Your task to perform on an android device: Search for top rated sushi restaurant Image 0: 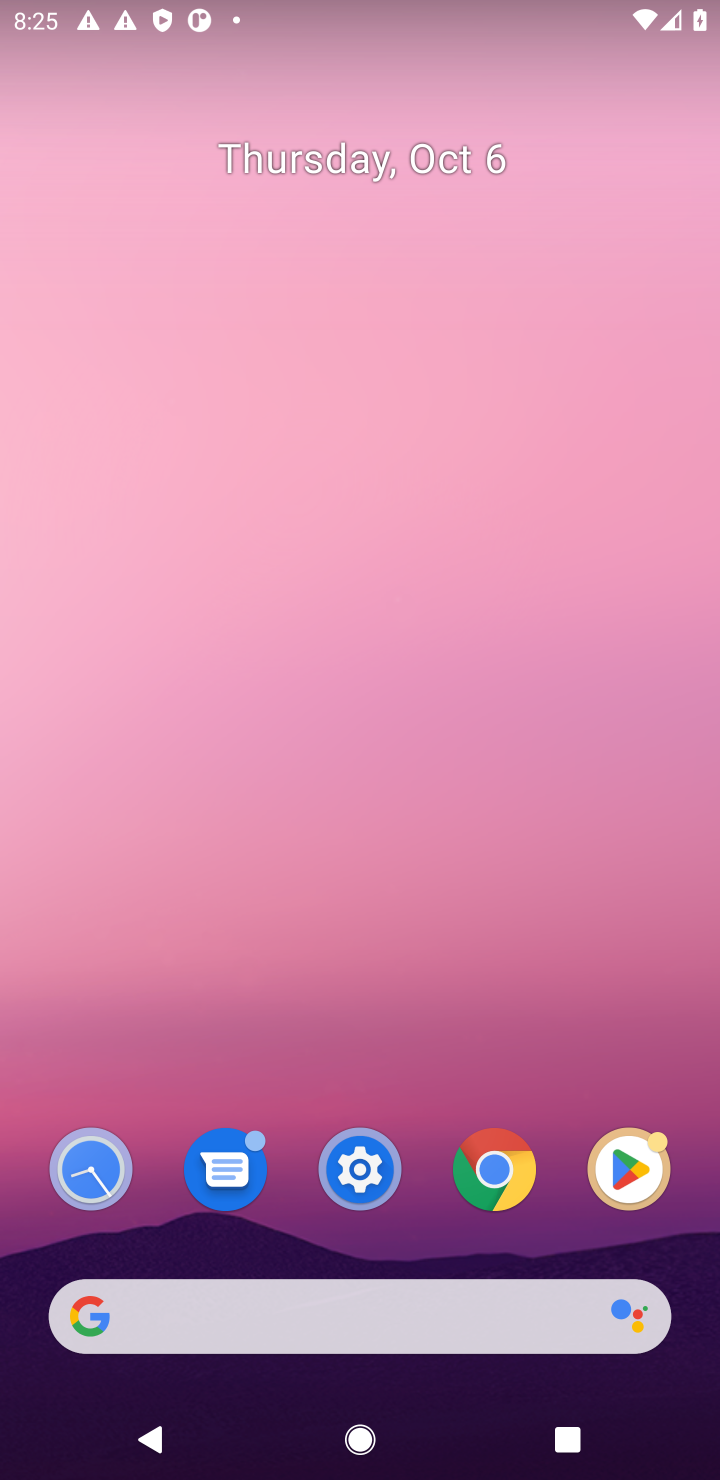
Step 0: drag from (361, 1020) to (562, 201)
Your task to perform on an android device: Search for top rated sushi restaurant Image 1: 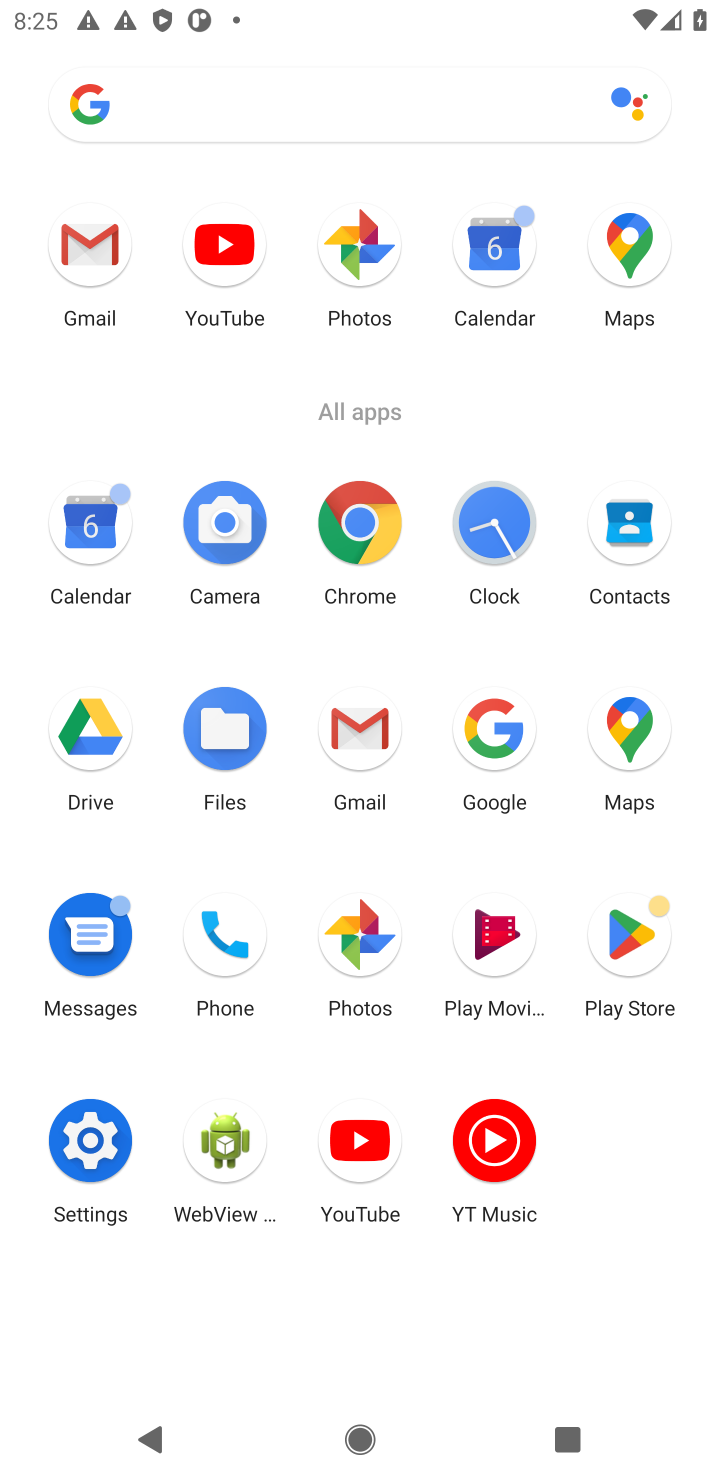
Step 1: click (495, 728)
Your task to perform on an android device: Search for top rated sushi restaurant Image 2: 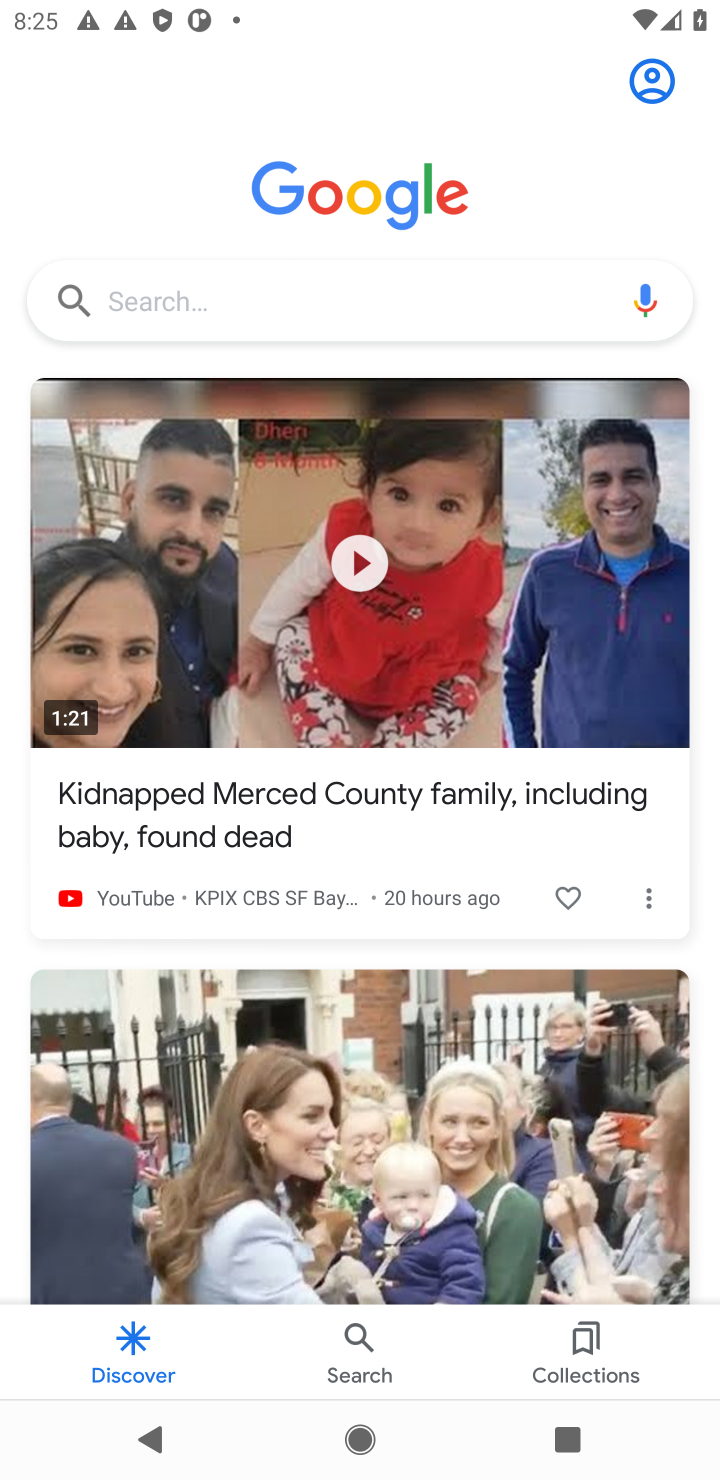
Step 2: click (333, 296)
Your task to perform on an android device: Search for top rated sushi restaurant Image 3: 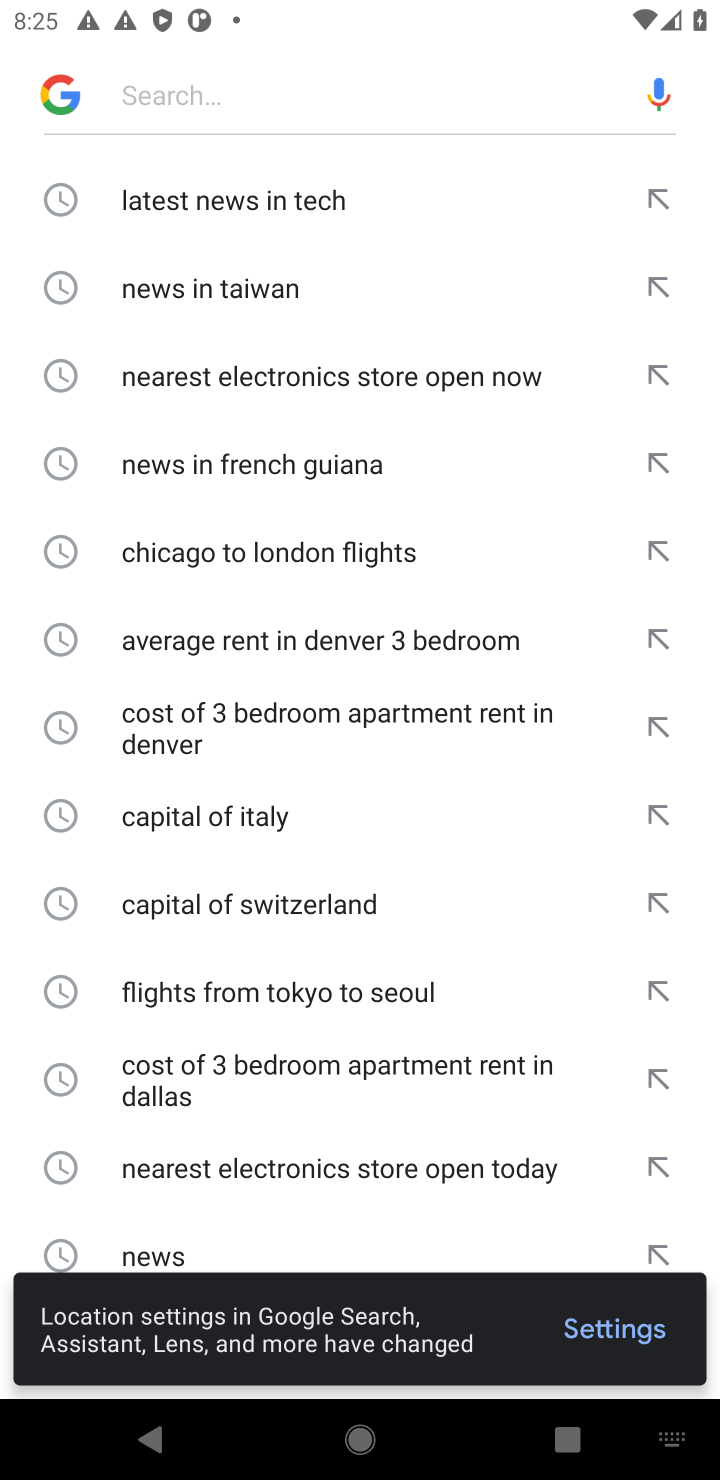
Step 3: type "top rated sushi restaurant"
Your task to perform on an android device: Search for top rated sushi restaurant Image 4: 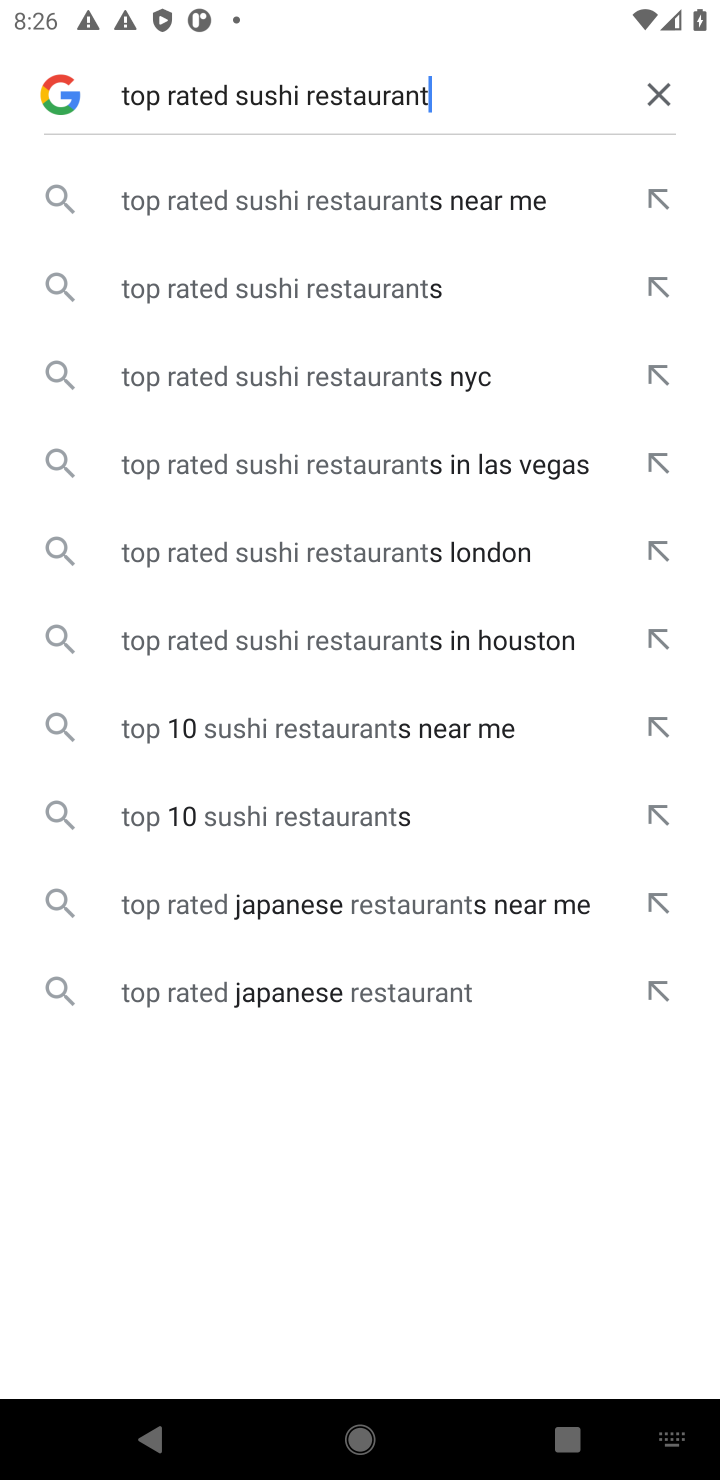
Step 4: click (331, 198)
Your task to perform on an android device: Search for top rated sushi restaurant Image 5: 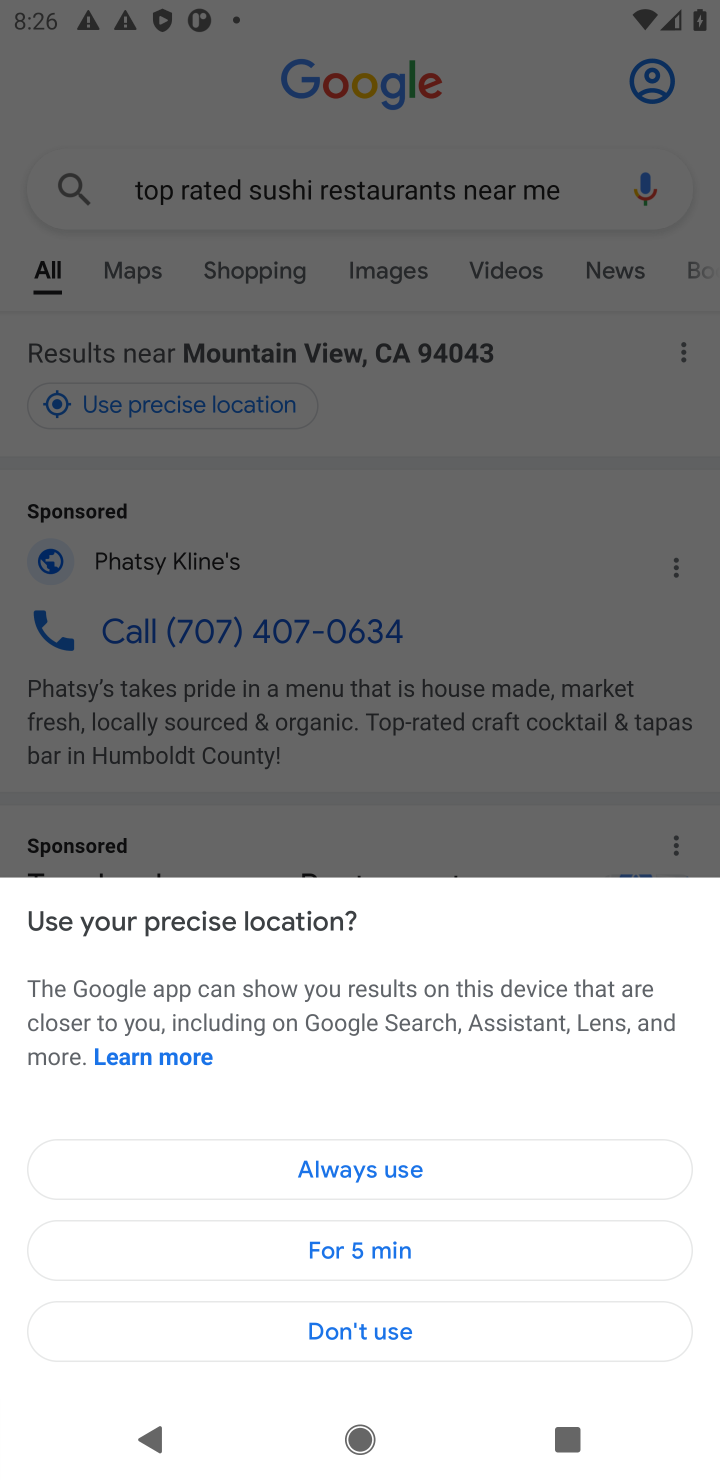
Step 5: click (460, 1176)
Your task to perform on an android device: Search for top rated sushi restaurant Image 6: 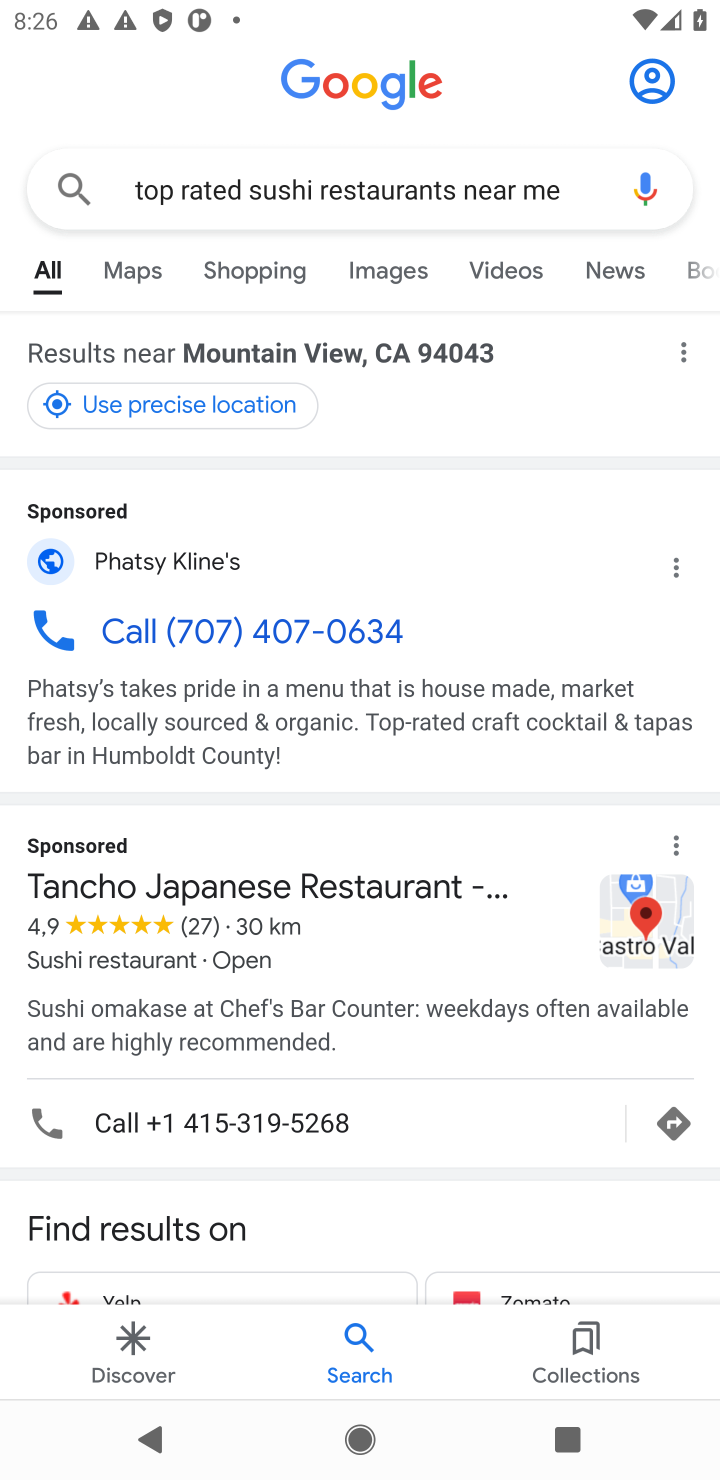
Step 6: task complete